Your task to perform on an android device: Go to notification settings Image 0: 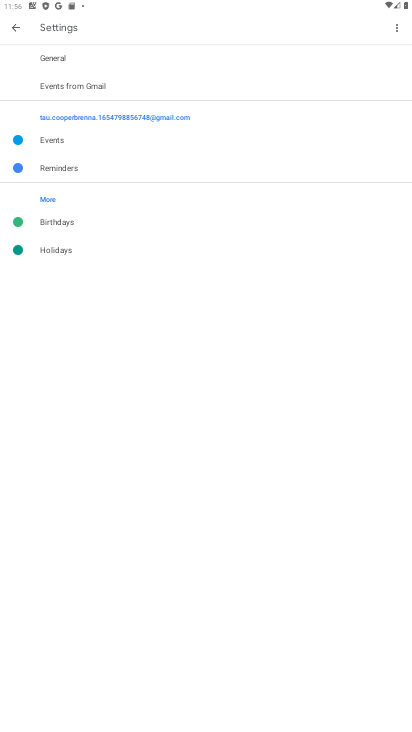
Step 0: press home button
Your task to perform on an android device: Go to notification settings Image 1: 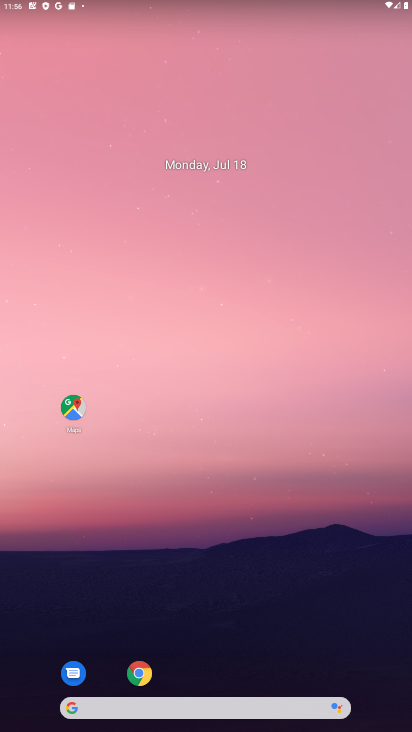
Step 1: drag from (176, 541) to (263, 123)
Your task to perform on an android device: Go to notification settings Image 2: 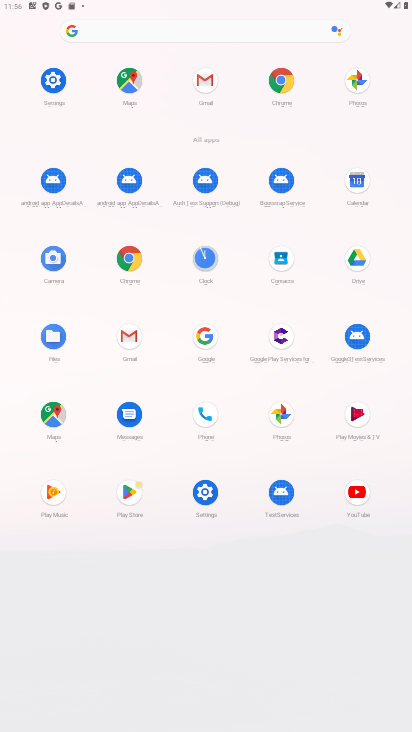
Step 2: click (54, 83)
Your task to perform on an android device: Go to notification settings Image 3: 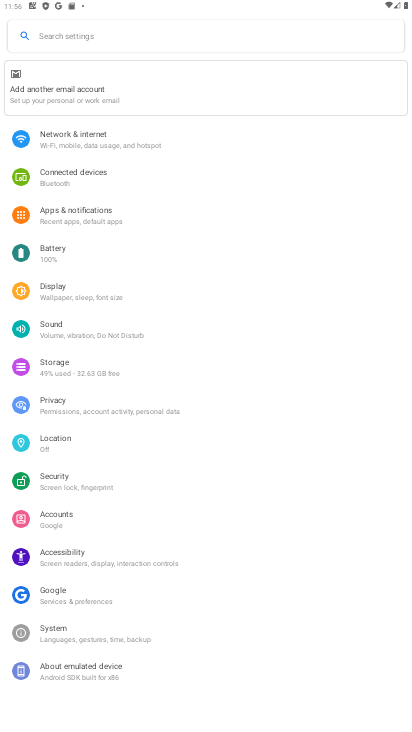
Step 3: click (118, 206)
Your task to perform on an android device: Go to notification settings Image 4: 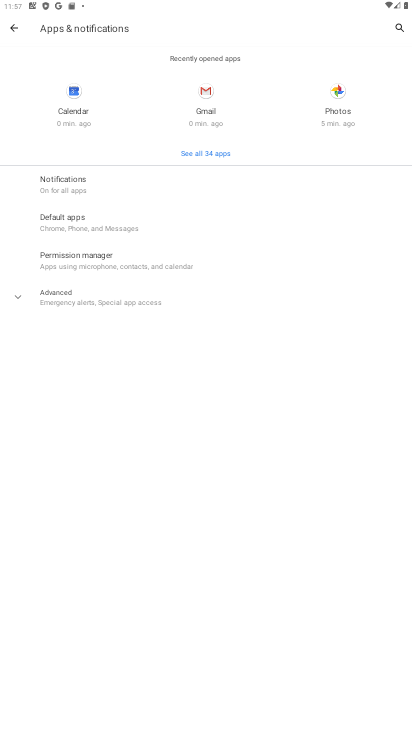
Step 4: click (70, 184)
Your task to perform on an android device: Go to notification settings Image 5: 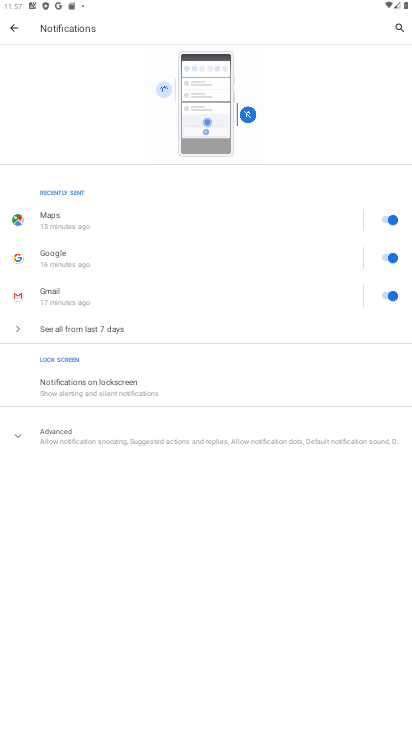
Step 5: task complete